Your task to perform on an android device: Go to sound settings Image 0: 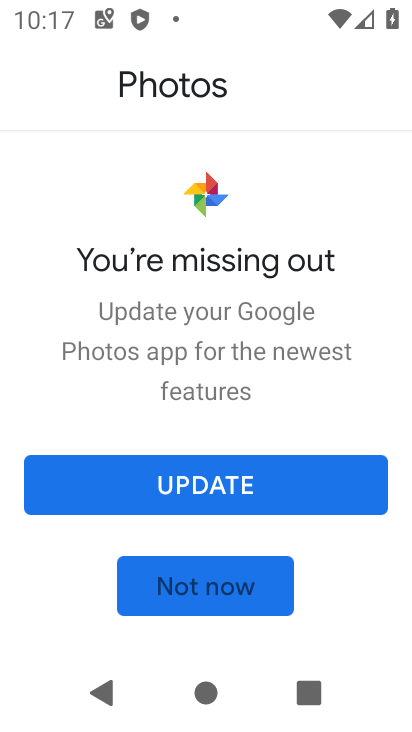
Step 0: press home button
Your task to perform on an android device: Go to sound settings Image 1: 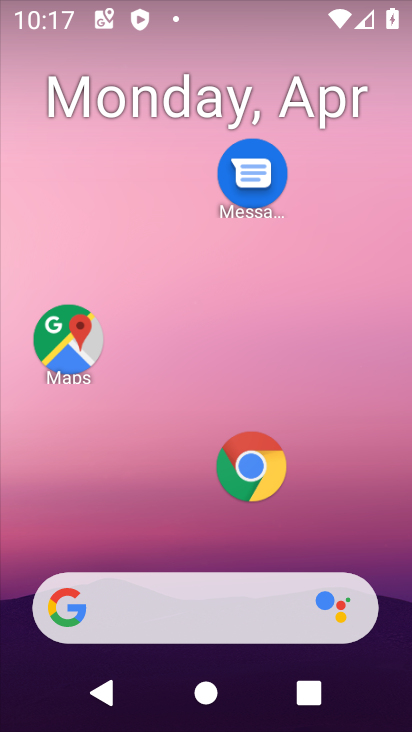
Step 1: drag from (161, 534) to (295, 12)
Your task to perform on an android device: Go to sound settings Image 2: 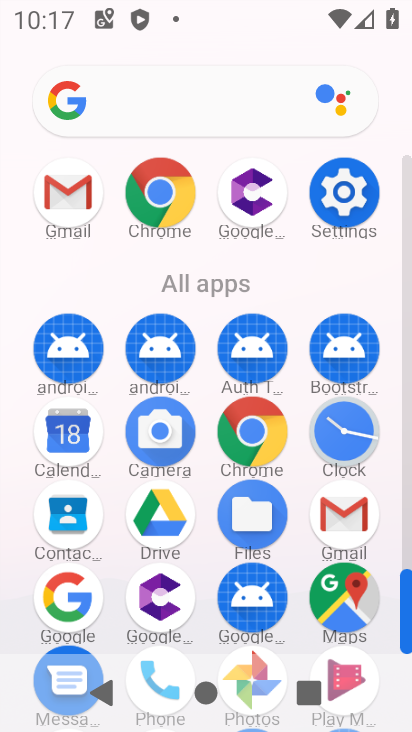
Step 2: click (342, 195)
Your task to perform on an android device: Go to sound settings Image 3: 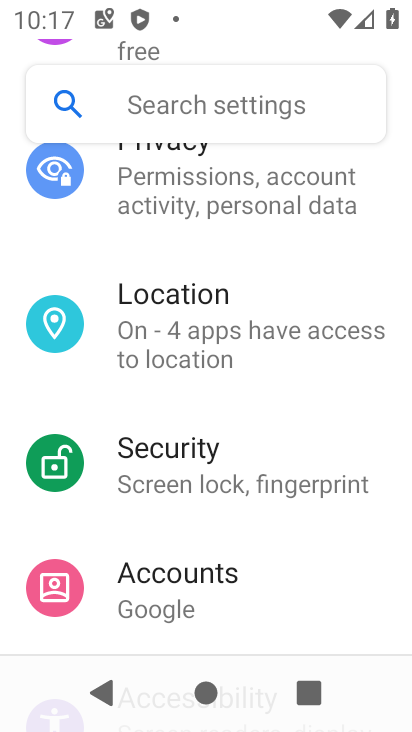
Step 3: drag from (191, 200) to (203, 654)
Your task to perform on an android device: Go to sound settings Image 4: 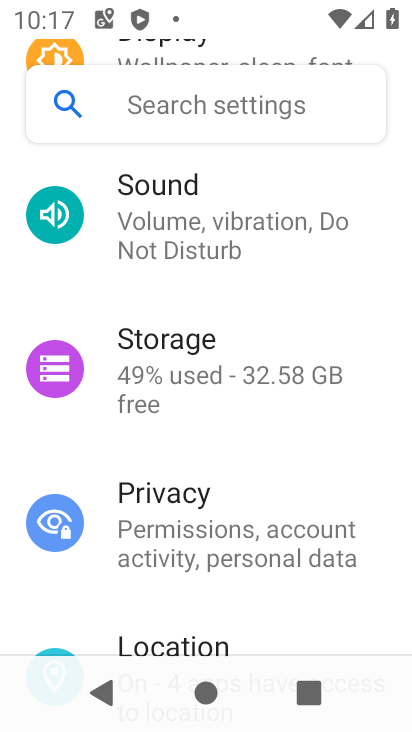
Step 4: click (193, 218)
Your task to perform on an android device: Go to sound settings Image 5: 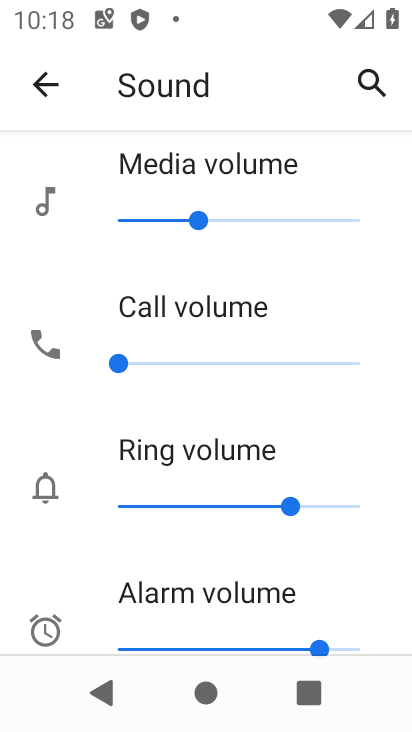
Step 5: task complete